Your task to perform on an android device: check out phone information Image 0: 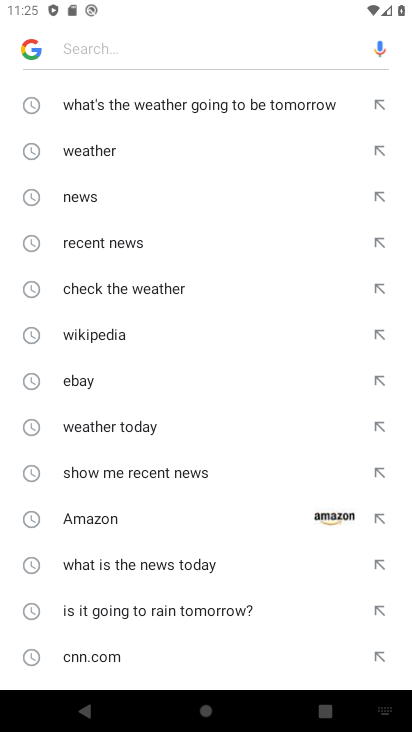
Step 0: press back button
Your task to perform on an android device: check out phone information Image 1: 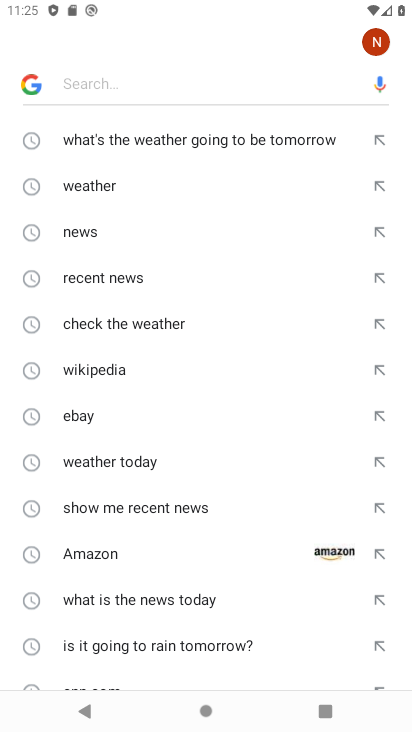
Step 1: press home button
Your task to perform on an android device: check out phone information Image 2: 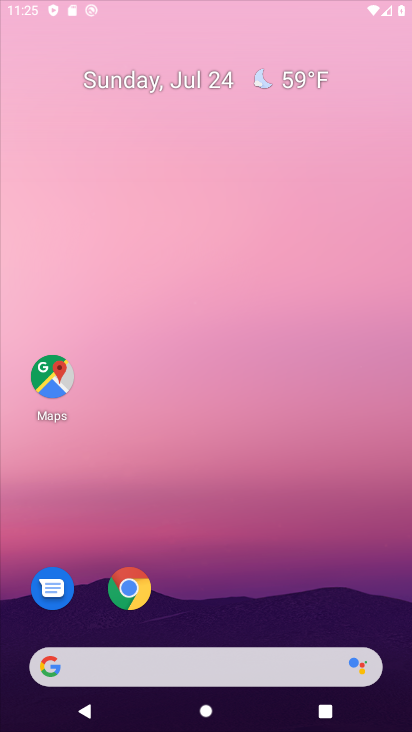
Step 2: drag from (372, 645) to (163, 52)
Your task to perform on an android device: check out phone information Image 3: 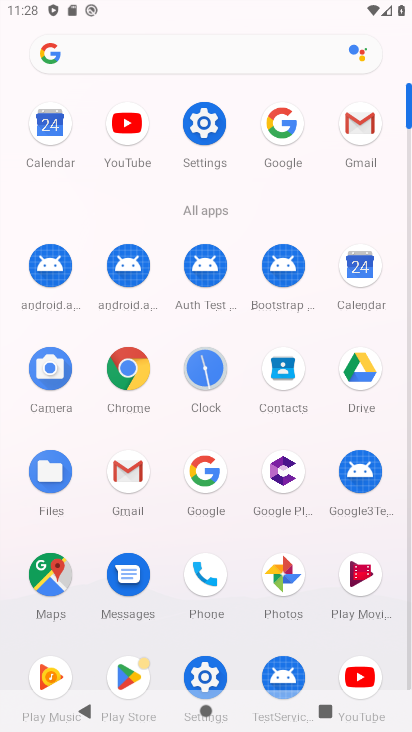
Step 3: click (197, 668)
Your task to perform on an android device: check out phone information Image 4: 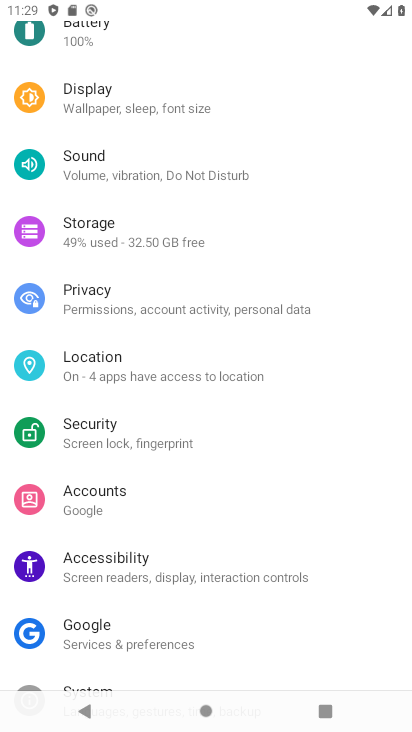
Step 4: task complete